Your task to perform on an android device: Is it going to rain this weekend? Image 0: 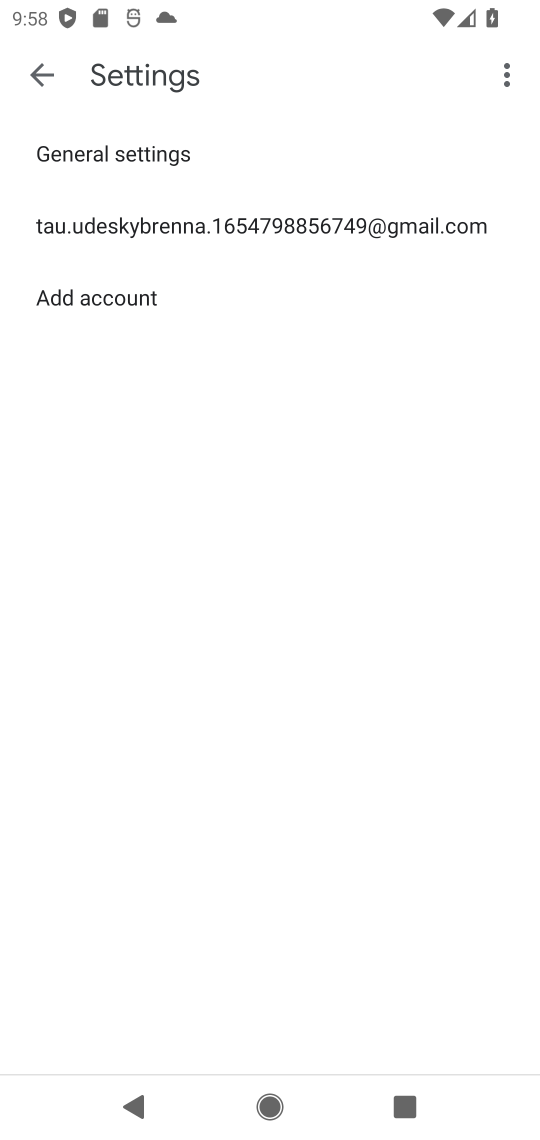
Step 0: press home button
Your task to perform on an android device: Is it going to rain this weekend? Image 1: 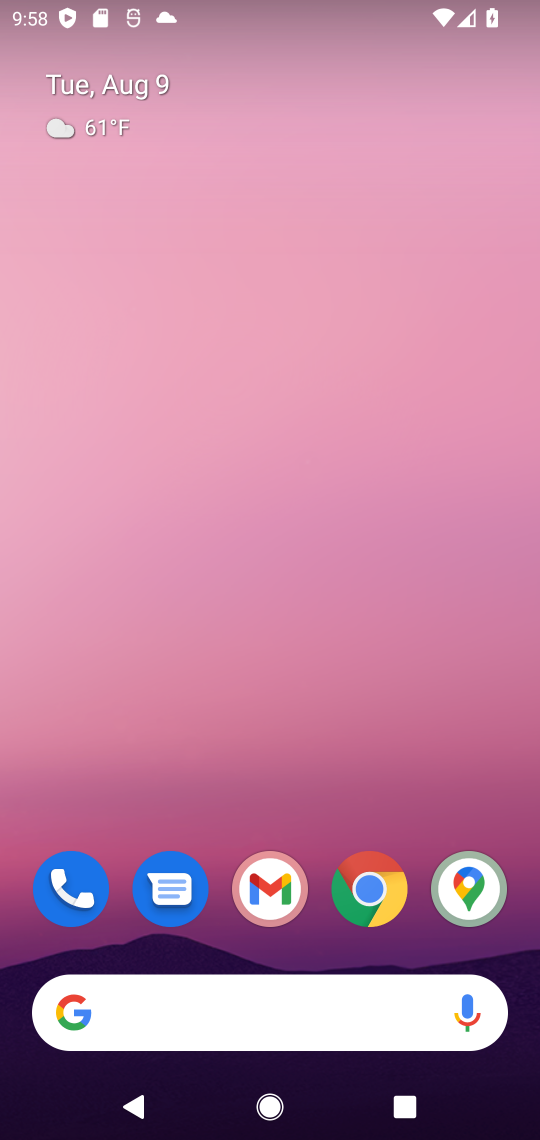
Step 1: drag from (324, 686) to (417, 21)
Your task to perform on an android device: Is it going to rain this weekend? Image 2: 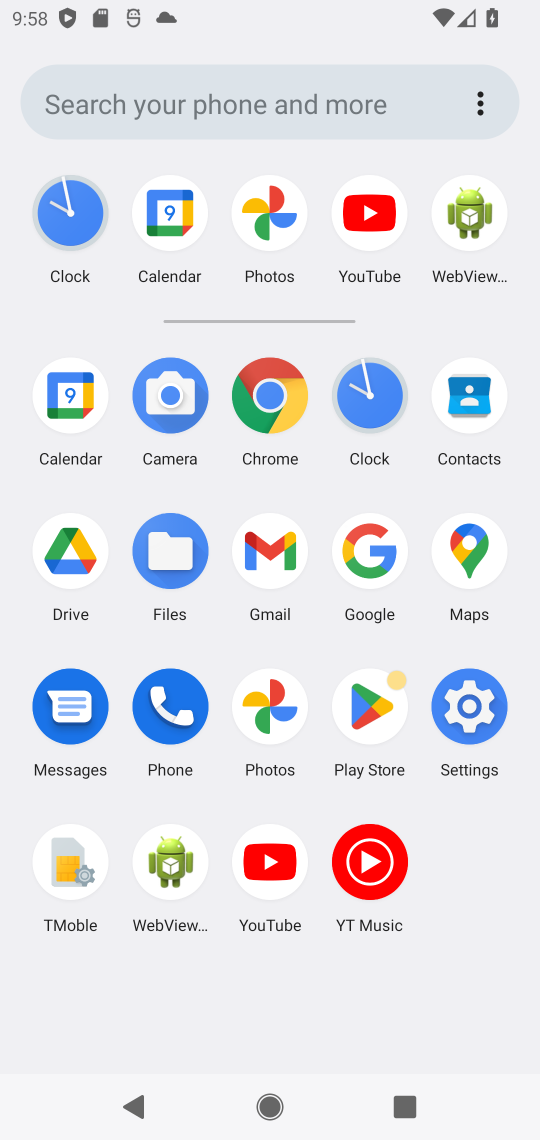
Step 2: click (366, 575)
Your task to perform on an android device: Is it going to rain this weekend? Image 3: 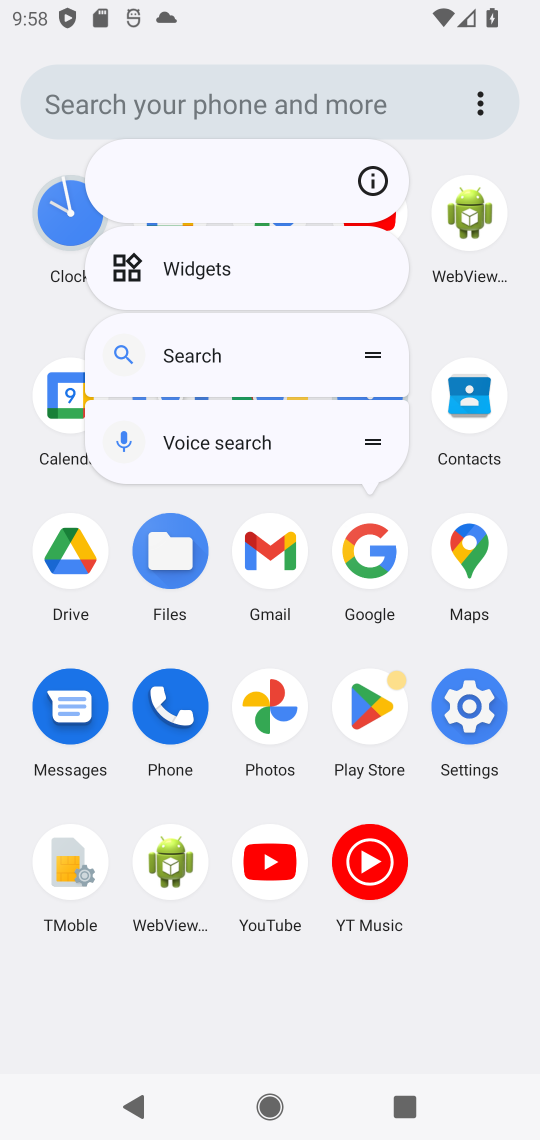
Step 3: click (372, 561)
Your task to perform on an android device: Is it going to rain this weekend? Image 4: 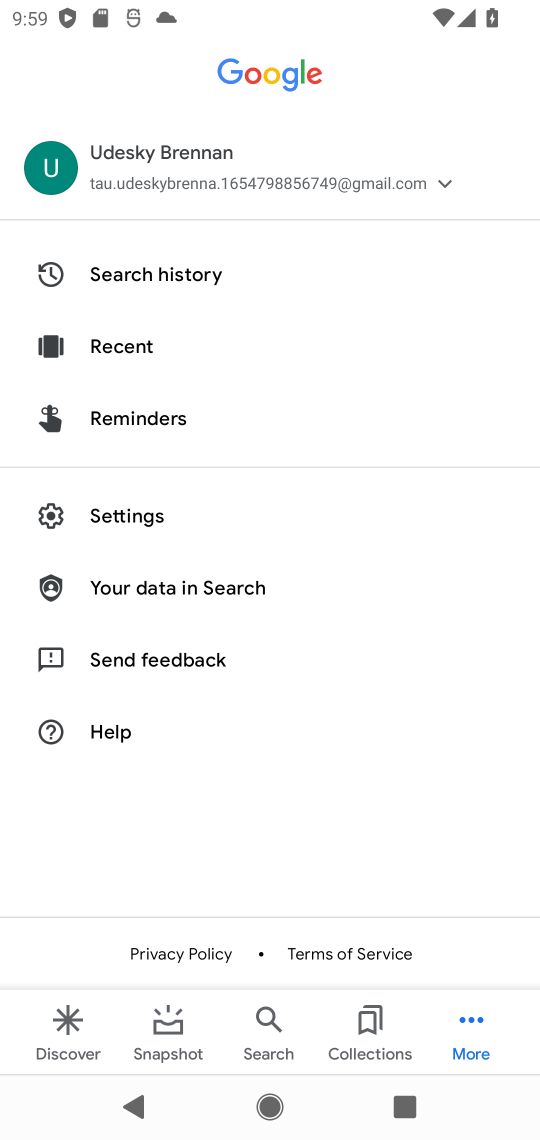
Step 4: press back button
Your task to perform on an android device: Is it going to rain this weekend? Image 5: 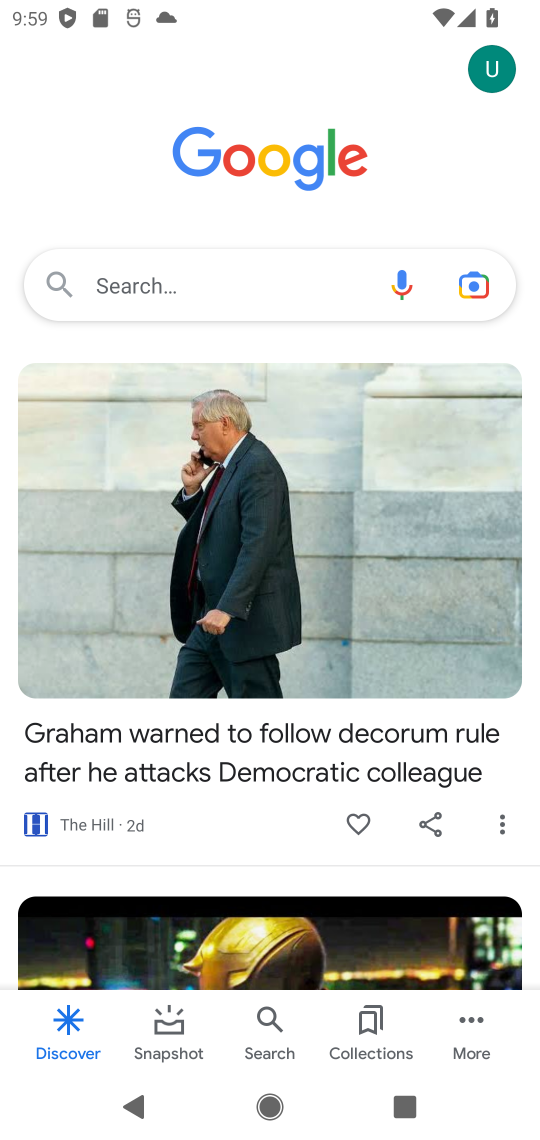
Step 5: click (254, 272)
Your task to perform on an android device: Is it going to rain this weekend? Image 6: 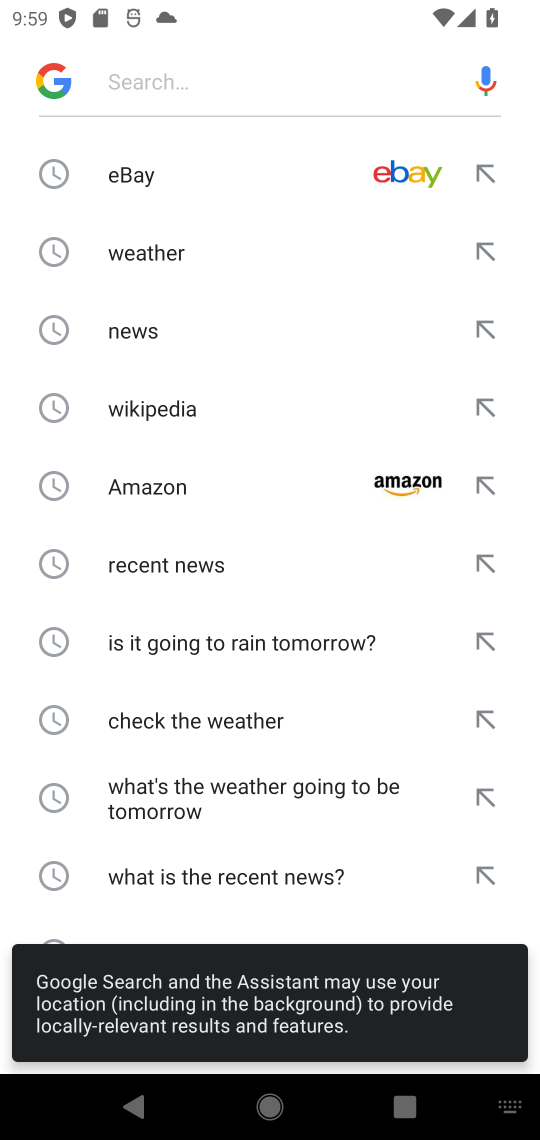
Step 6: click (192, 266)
Your task to perform on an android device: Is it going to rain this weekend? Image 7: 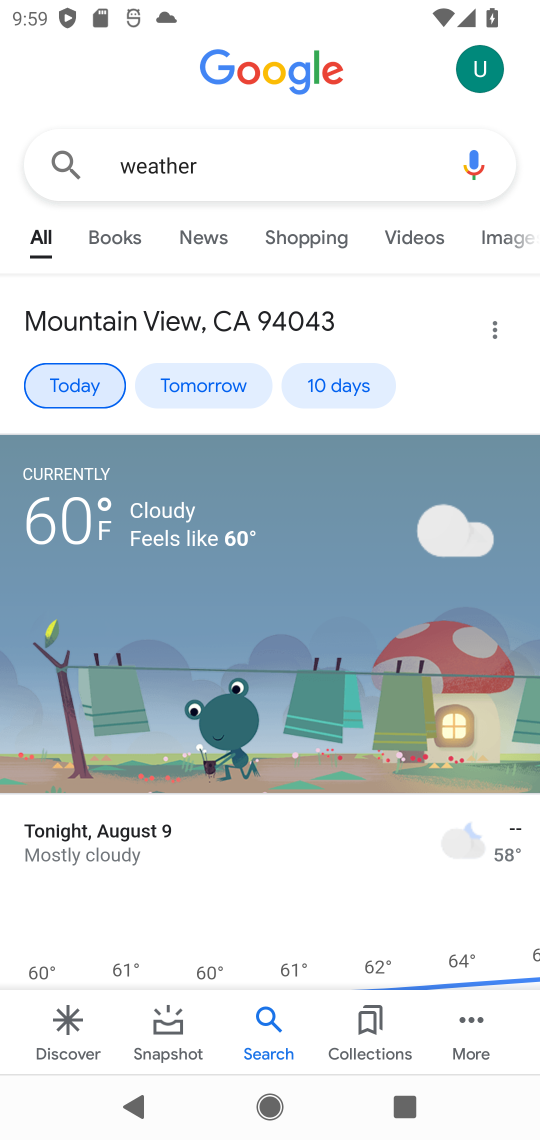
Step 7: task complete